Your task to perform on an android device: Do I have any events this weekend? Image 0: 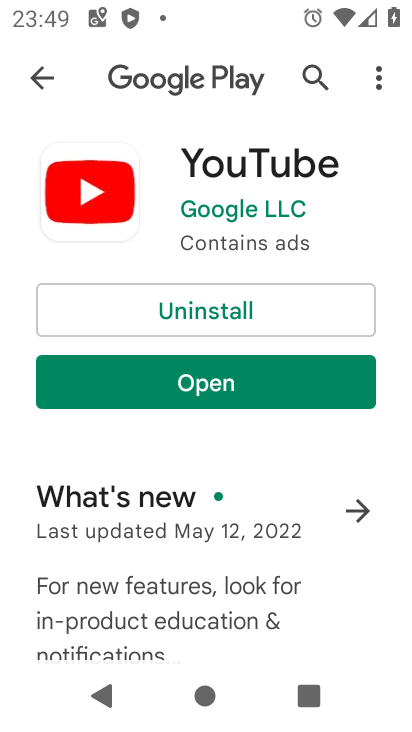
Step 0: press home button
Your task to perform on an android device: Do I have any events this weekend? Image 1: 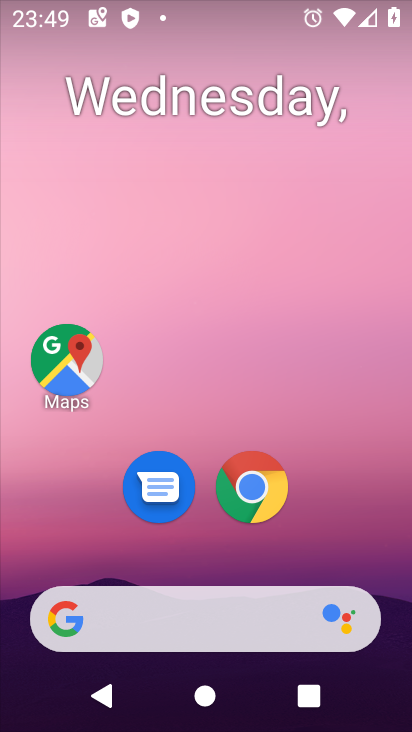
Step 1: drag from (380, 575) to (360, 10)
Your task to perform on an android device: Do I have any events this weekend? Image 2: 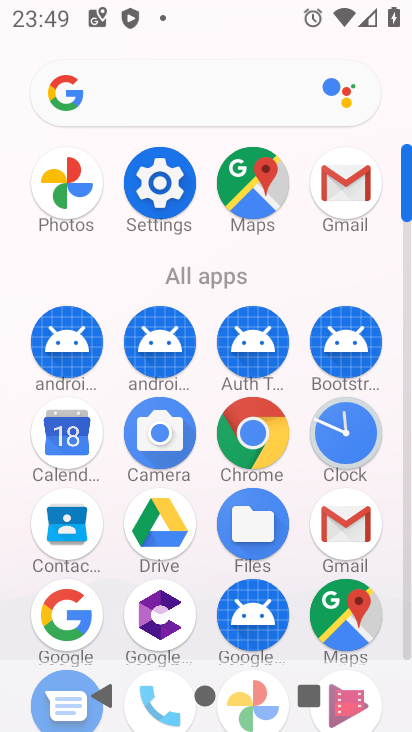
Step 2: click (68, 438)
Your task to perform on an android device: Do I have any events this weekend? Image 3: 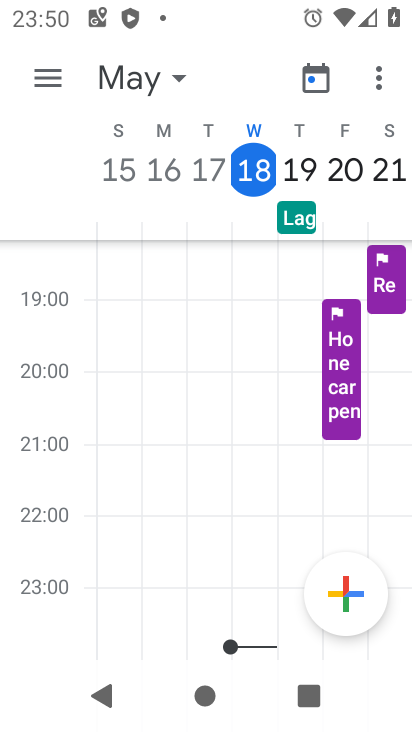
Step 3: click (55, 75)
Your task to perform on an android device: Do I have any events this weekend? Image 4: 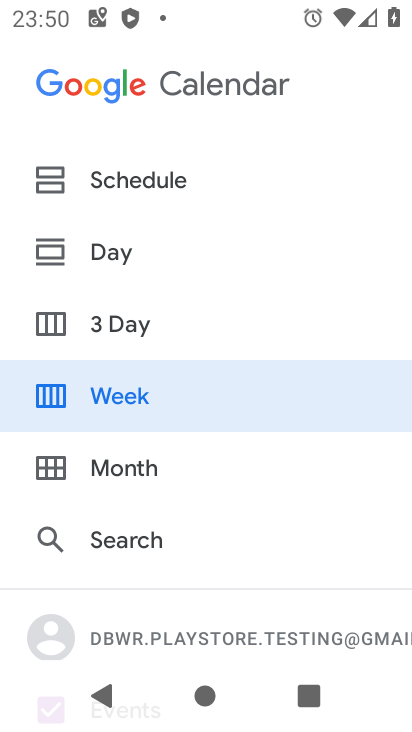
Step 4: drag from (178, 508) to (184, 143)
Your task to perform on an android device: Do I have any events this weekend? Image 5: 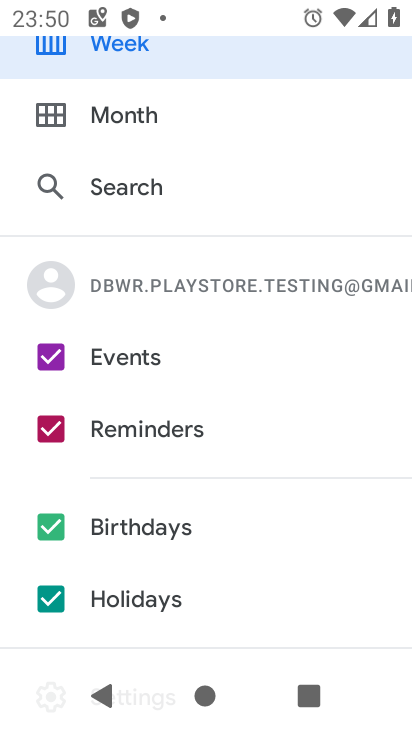
Step 5: click (53, 434)
Your task to perform on an android device: Do I have any events this weekend? Image 6: 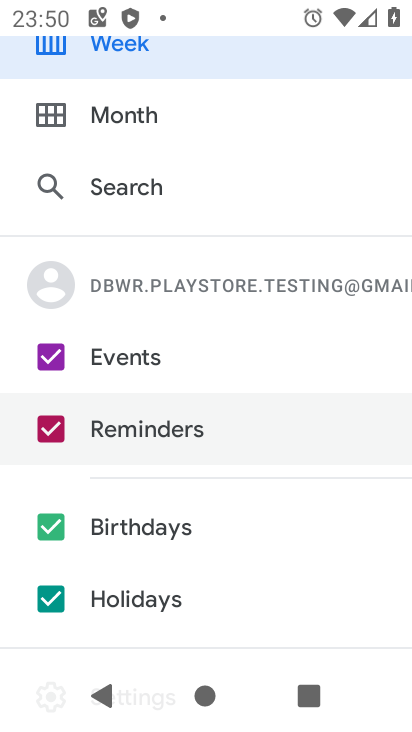
Step 6: click (39, 540)
Your task to perform on an android device: Do I have any events this weekend? Image 7: 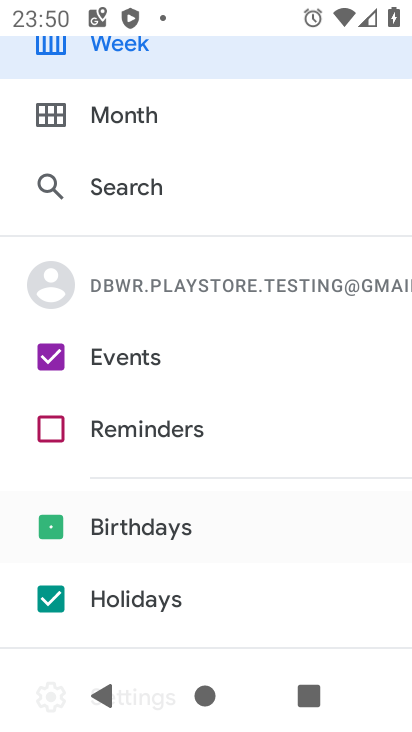
Step 7: click (43, 592)
Your task to perform on an android device: Do I have any events this weekend? Image 8: 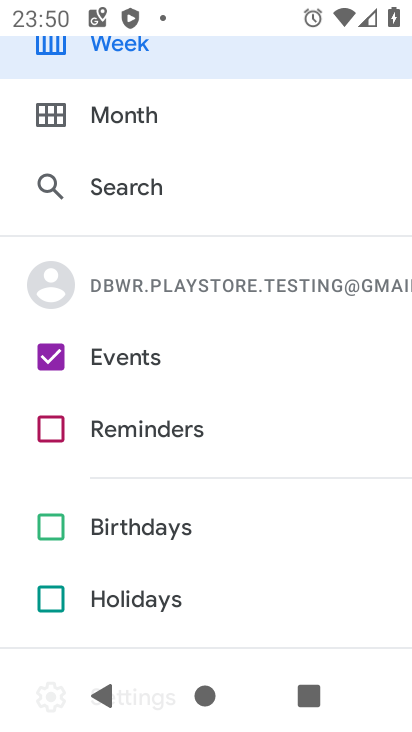
Step 8: click (110, 51)
Your task to perform on an android device: Do I have any events this weekend? Image 9: 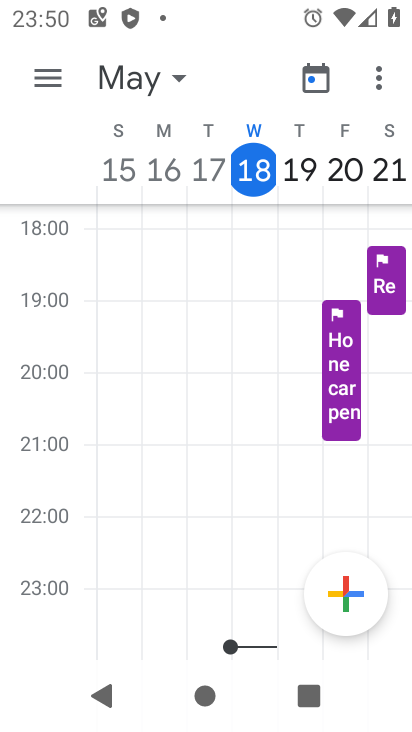
Step 9: drag from (257, 383) to (234, 523)
Your task to perform on an android device: Do I have any events this weekend? Image 10: 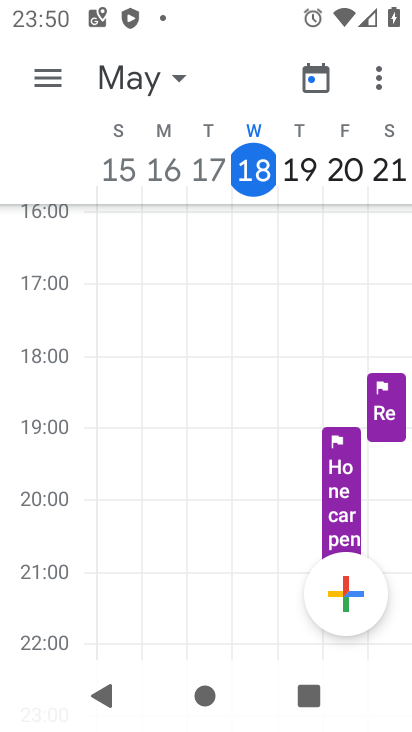
Step 10: drag from (224, 405) to (229, 239)
Your task to perform on an android device: Do I have any events this weekend? Image 11: 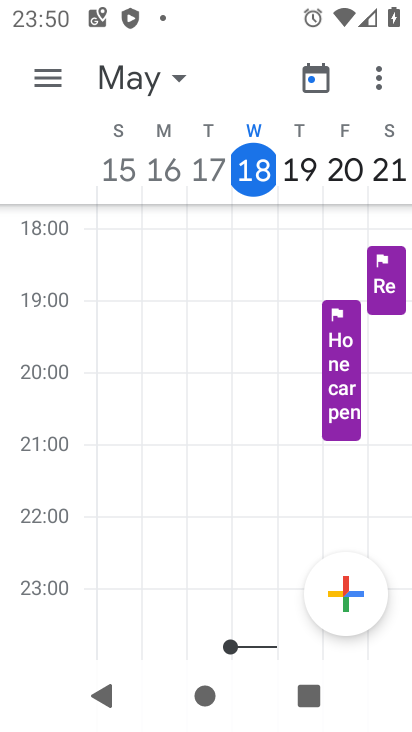
Step 11: click (56, 85)
Your task to perform on an android device: Do I have any events this weekend? Image 12: 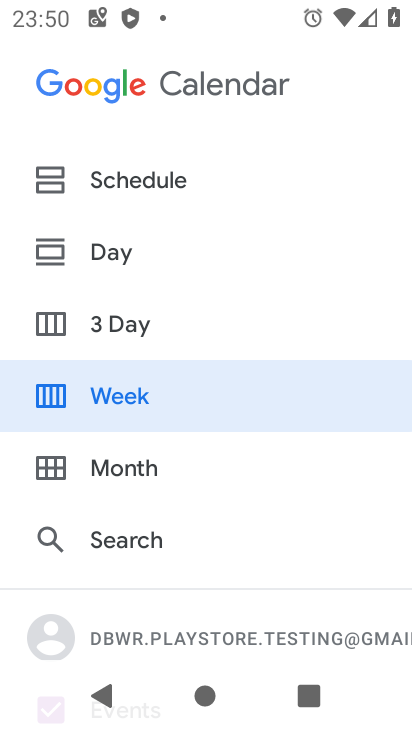
Step 12: click (110, 391)
Your task to perform on an android device: Do I have any events this weekend? Image 13: 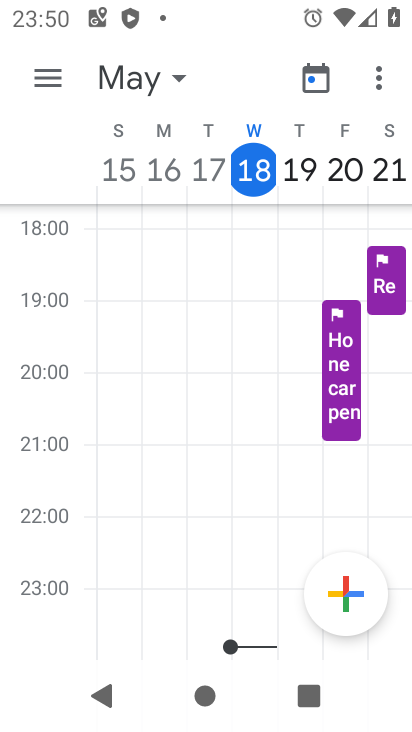
Step 13: task complete